Your task to perform on an android device: toggle airplane mode Image 0: 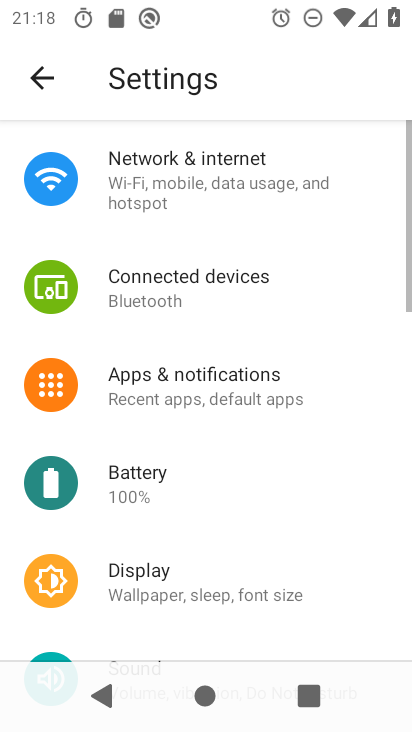
Step 0: click (218, 159)
Your task to perform on an android device: toggle airplane mode Image 1: 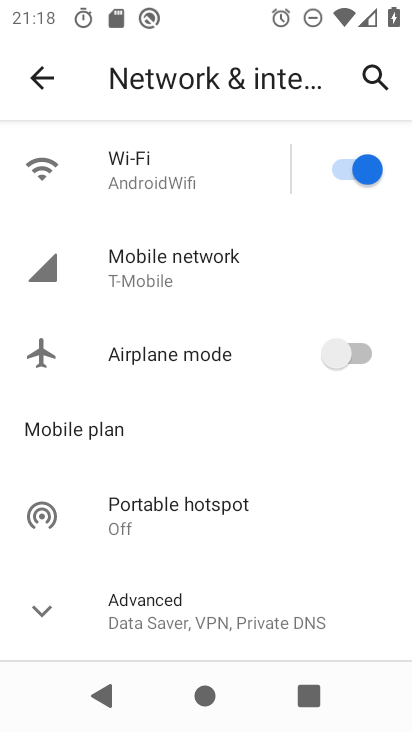
Step 1: click (355, 350)
Your task to perform on an android device: toggle airplane mode Image 2: 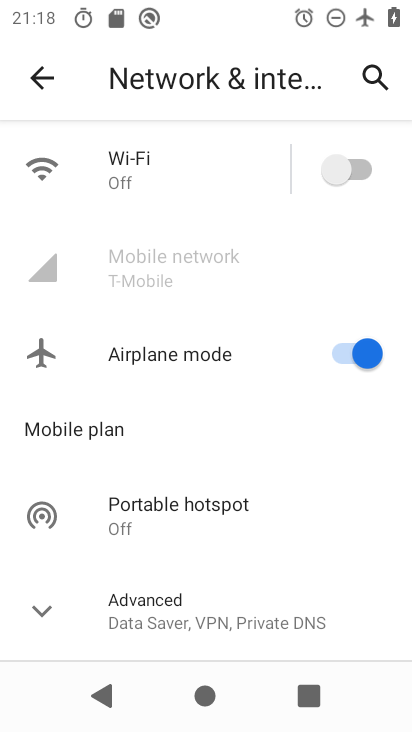
Step 2: task complete